Your task to perform on an android device: Open the calendar app Image 0: 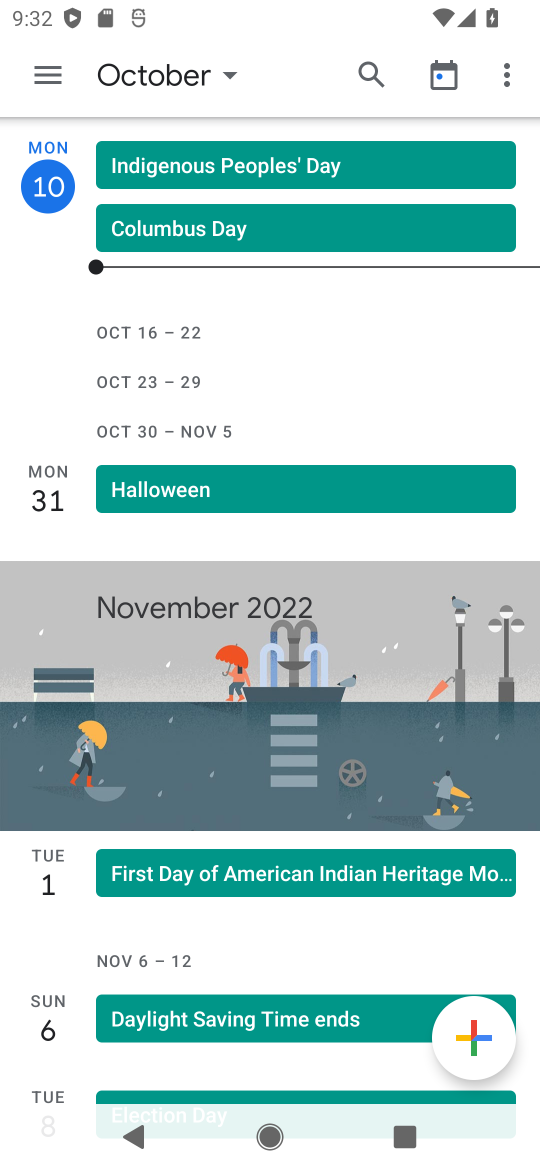
Step 0: task complete